Your task to perform on an android device: remove spam from my inbox in the gmail app Image 0: 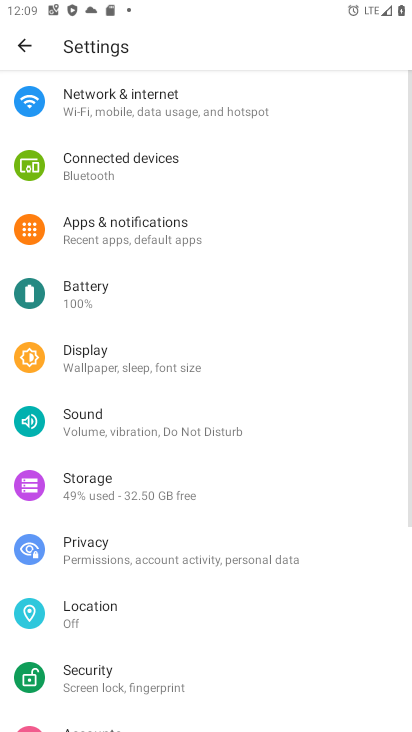
Step 0: press home button
Your task to perform on an android device: remove spam from my inbox in the gmail app Image 1: 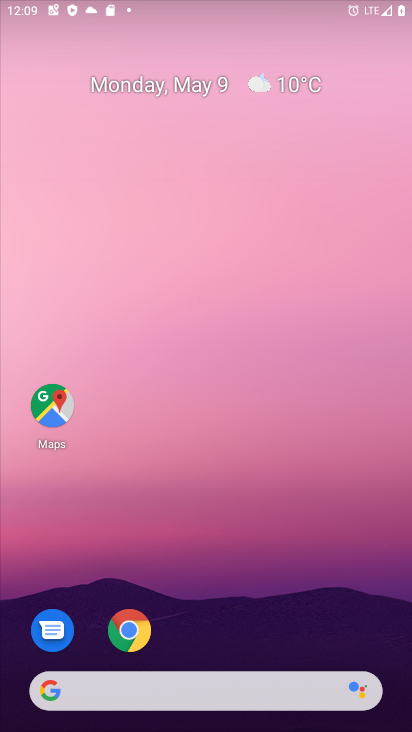
Step 1: drag from (347, 646) to (296, 90)
Your task to perform on an android device: remove spam from my inbox in the gmail app Image 2: 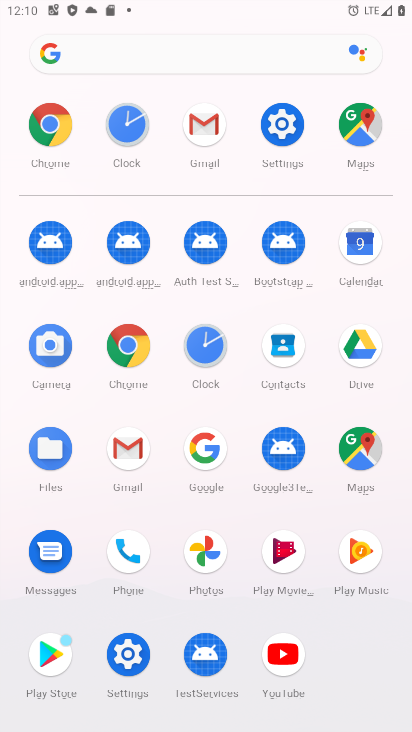
Step 2: click (126, 442)
Your task to perform on an android device: remove spam from my inbox in the gmail app Image 3: 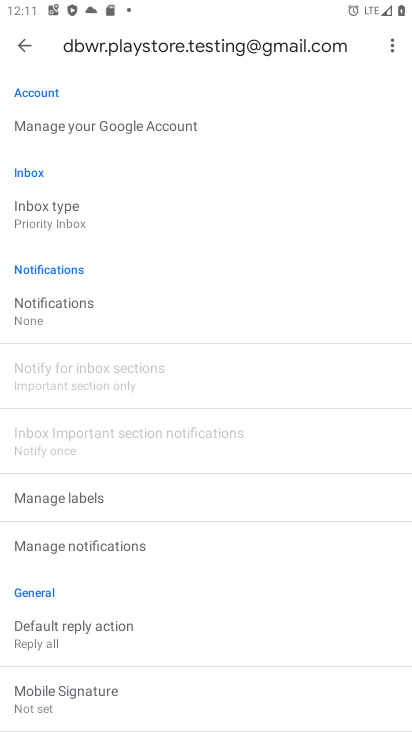
Step 3: click (27, 45)
Your task to perform on an android device: remove spam from my inbox in the gmail app Image 4: 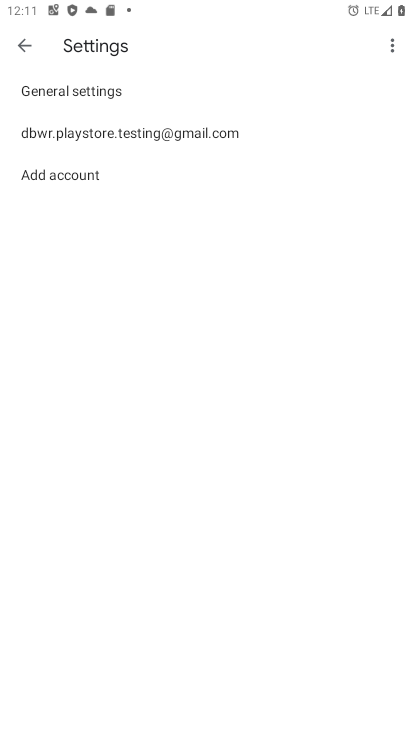
Step 4: click (27, 45)
Your task to perform on an android device: remove spam from my inbox in the gmail app Image 5: 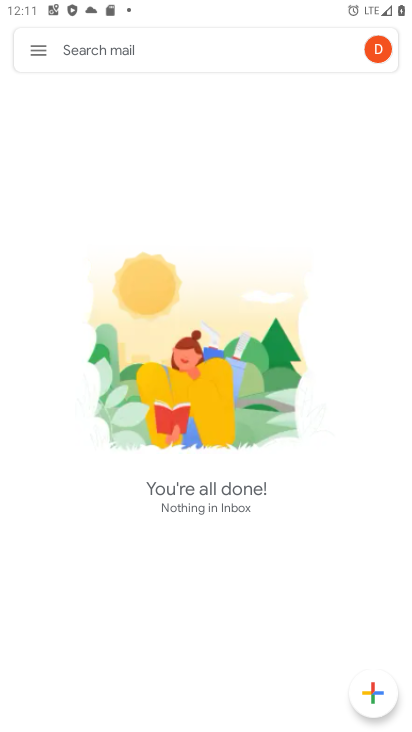
Step 5: click (27, 45)
Your task to perform on an android device: remove spam from my inbox in the gmail app Image 6: 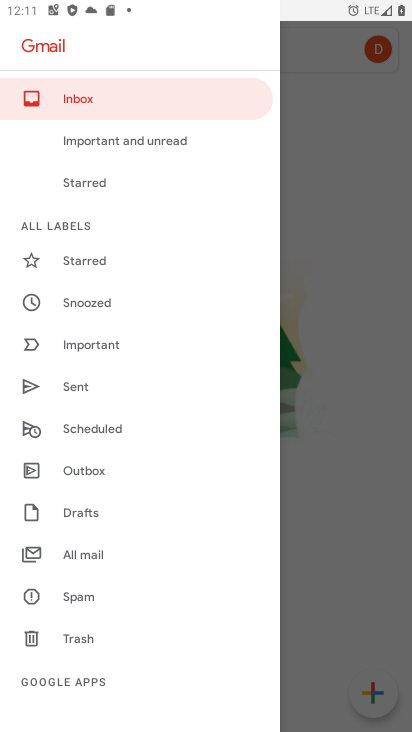
Step 6: click (82, 606)
Your task to perform on an android device: remove spam from my inbox in the gmail app Image 7: 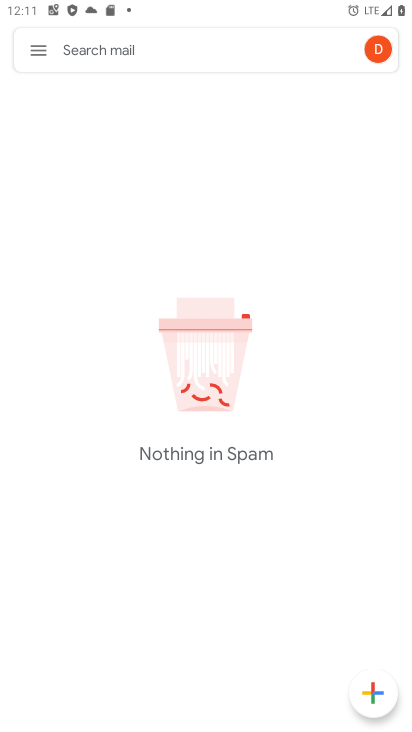
Step 7: task complete